Your task to perform on an android device: Search for seafood restaurants on Google Maps Image 0: 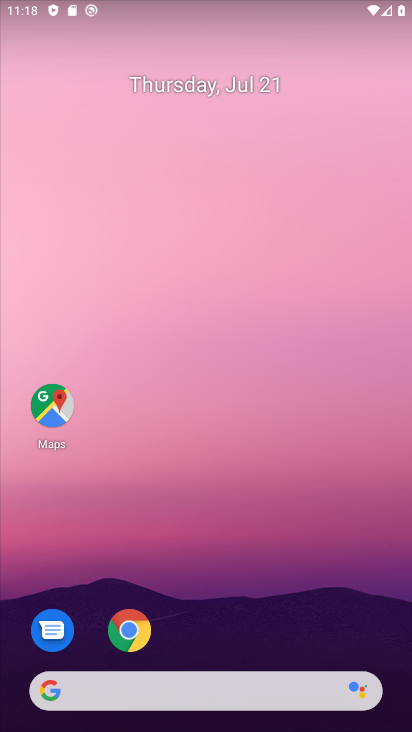
Step 0: drag from (198, 656) to (179, 23)
Your task to perform on an android device: Search for seafood restaurants on Google Maps Image 1: 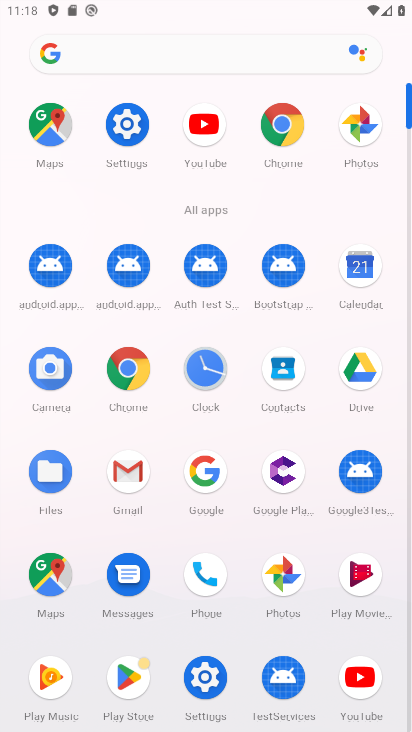
Step 1: click (37, 585)
Your task to perform on an android device: Search for seafood restaurants on Google Maps Image 2: 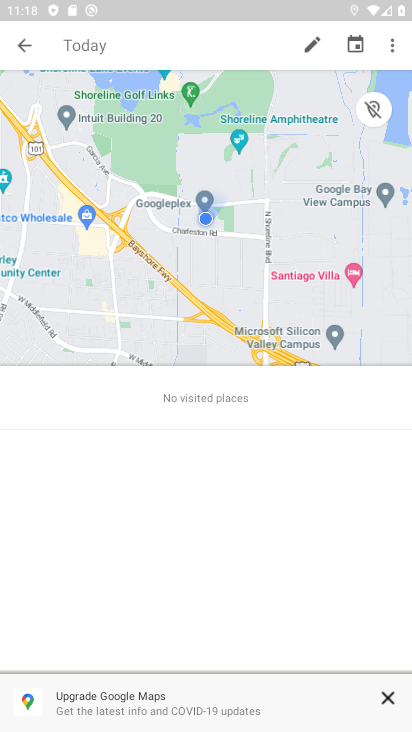
Step 2: click (17, 45)
Your task to perform on an android device: Search for seafood restaurants on Google Maps Image 3: 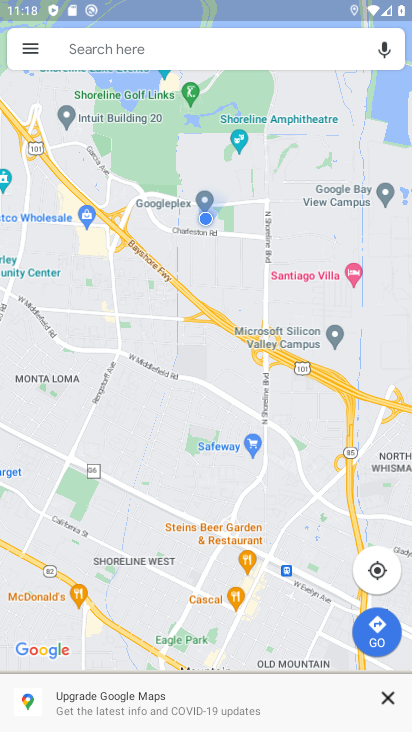
Step 3: click (189, 39)
Your task to perform on an android device: Search for seafood restaurants on Google Maps Image 4: 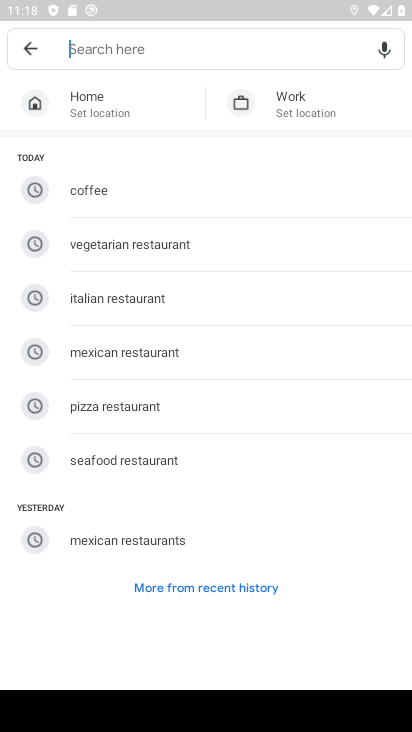
Step 4: click (104, 469)
Your task to perform on an android device: Search for seafood restaurants on Google Maps Image 5: 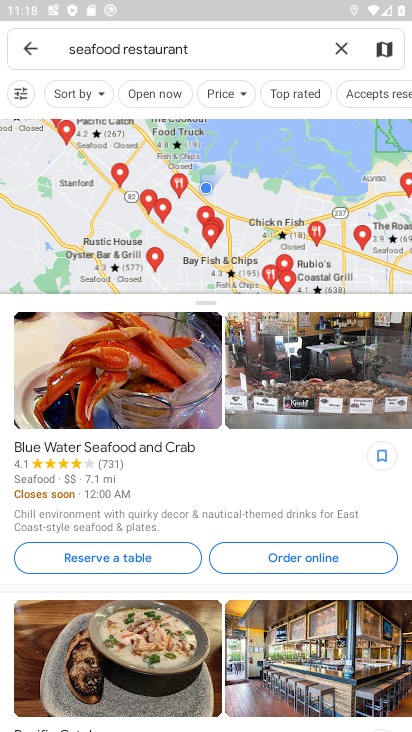
Step 5: task complete